Your task to perform on an android device: Go to wifi settings Image 0: 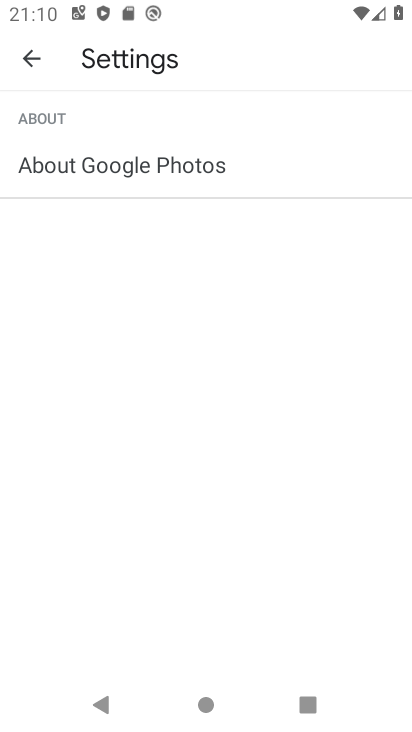
Step 0: click (31, 68)
Your task to perform on an android device: Go to wifi settings Image 1: 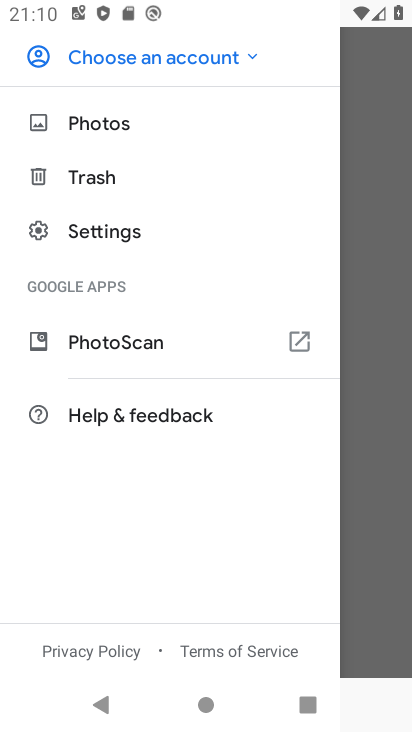
Step 1: press home button
Your task to perform on an android device: Go to wifi settings Image 2: 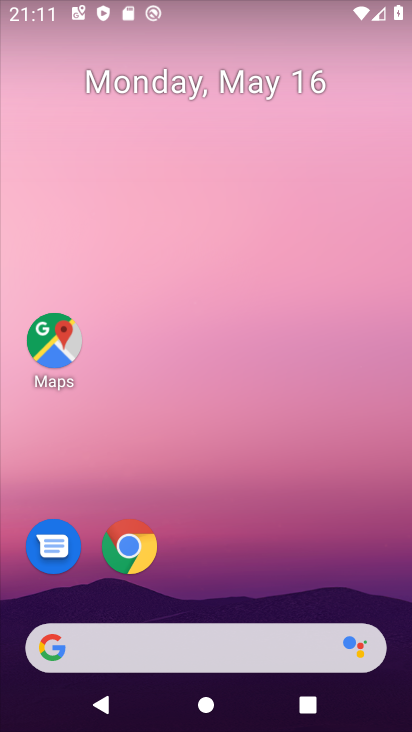
Step 2: drag from (308, 622) to (292, 329)
Your task to perform on an android device: Go to wifi settings Image 3: 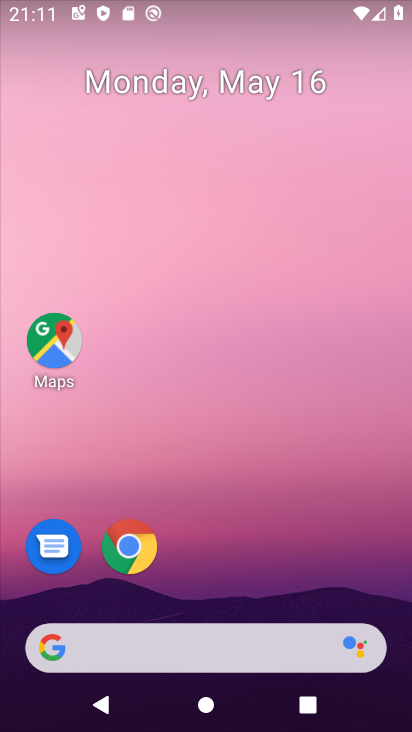
Step 3: drag from (229, 680) to (237, 186)
Your task to perform on an android device: Go to wifi settings Image 4: 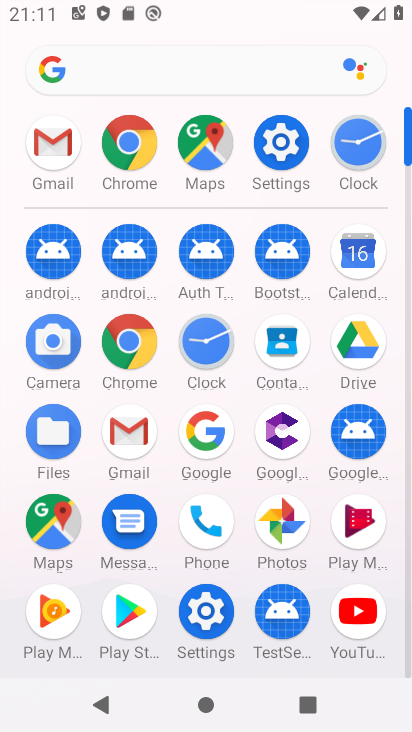
Step 4: click (270, 152)
Your task to perform on an android device: Go to wifi settings Image 5: 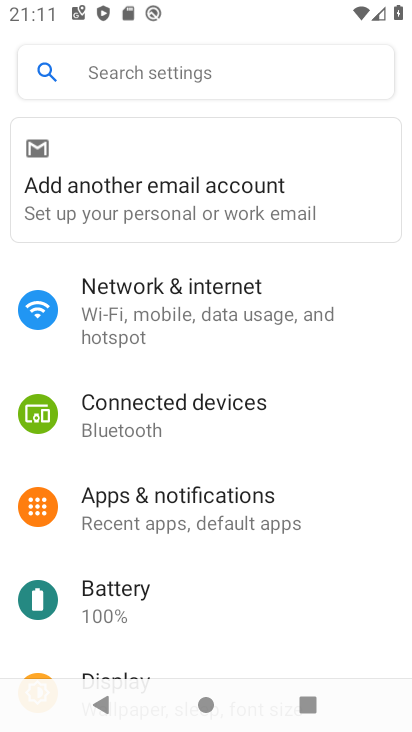
Step 5: click (171, 289)
Your task to perform on an android device: Go to wifi settings Image 6: 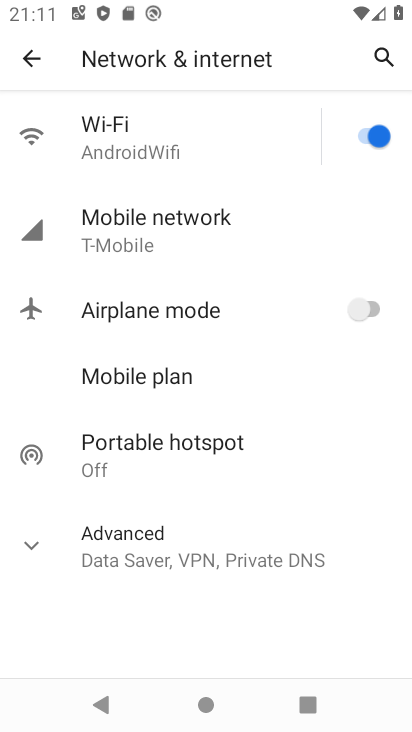
Step 6: click (211, 136)
Your task to perform on an android device: Go to wifi settings Image 7: 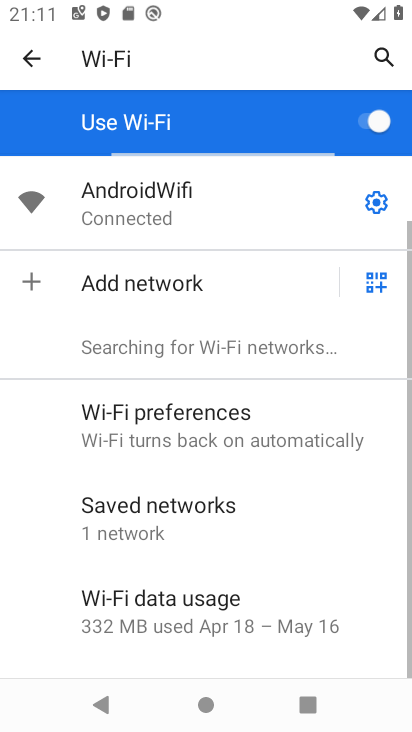
Step 7: task complete